Your task to perform on an android device: Search for Mexican restaurants on Maps Image 0: 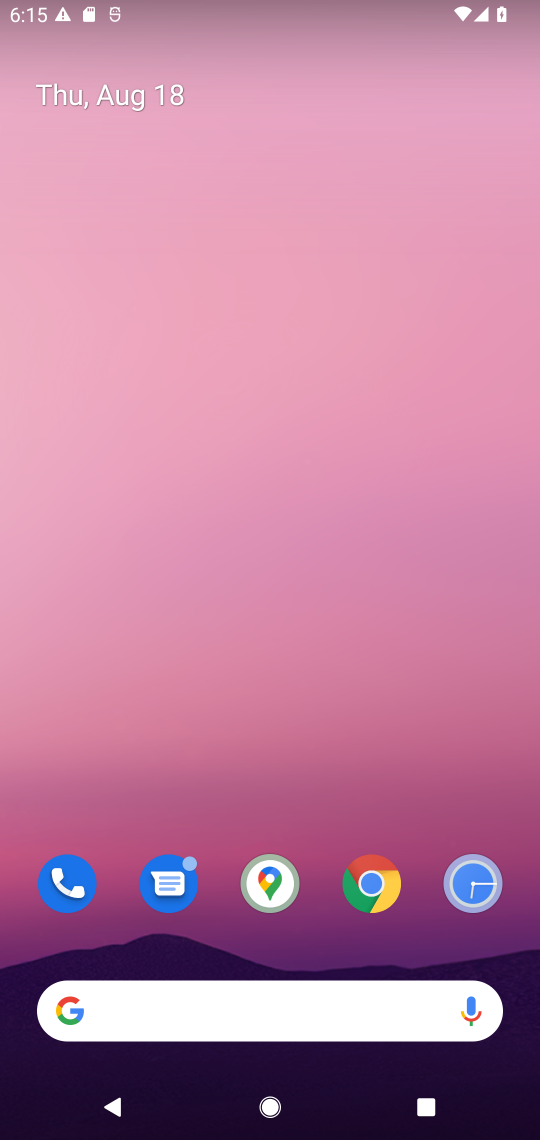
Step 0: click (297, 900)
Your task to perform on an android device: Search for Mexican restaurants on Maps Image 1: 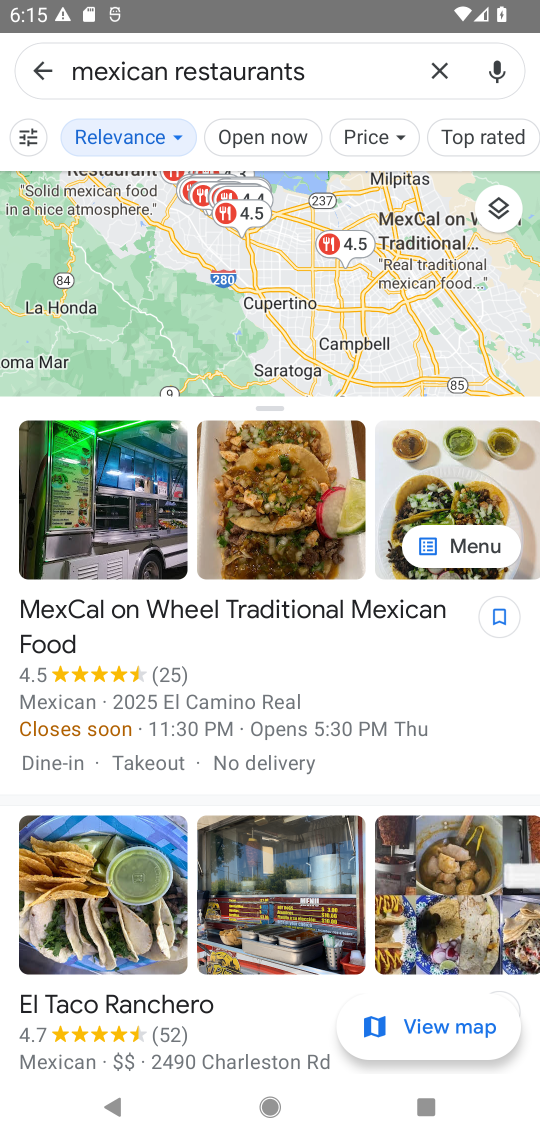
Step 1: task complete